Your task to perform on an android device: Open Youtube and go to the subscriptions tab Image 0: 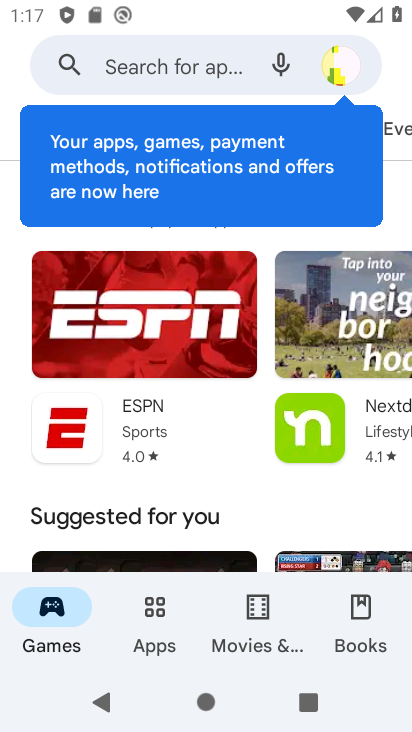
Step 0: press home button
Your task to perform on an android device: Open Youtube and go to the subscriptions tab Image 1: 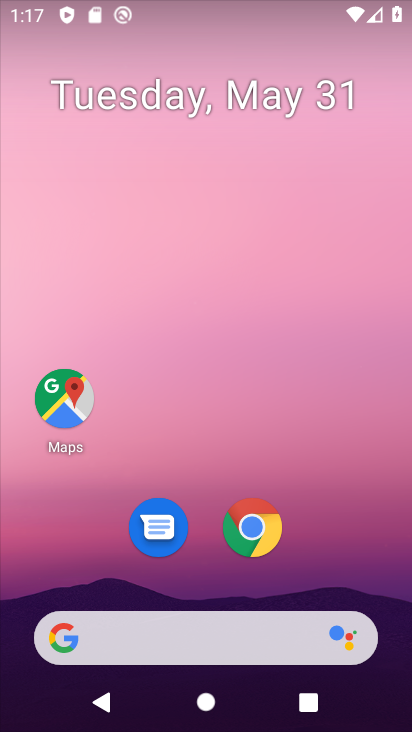
Step 1: drag from (348, 528) to (245, 8)
Your task to perform on an android device: Open Youtube and go to the subscriptions tab Image 2: 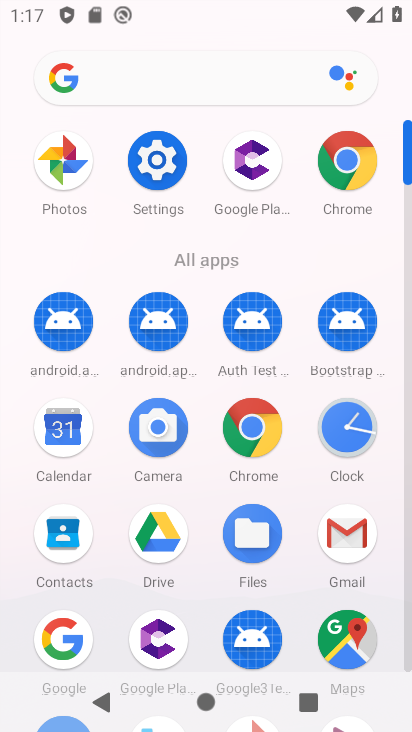
Step 2: drag from (396, 587) to (335, 165)
Your task to perform on an android device: Open Youtube and go to the subscriptions tab Image 3: 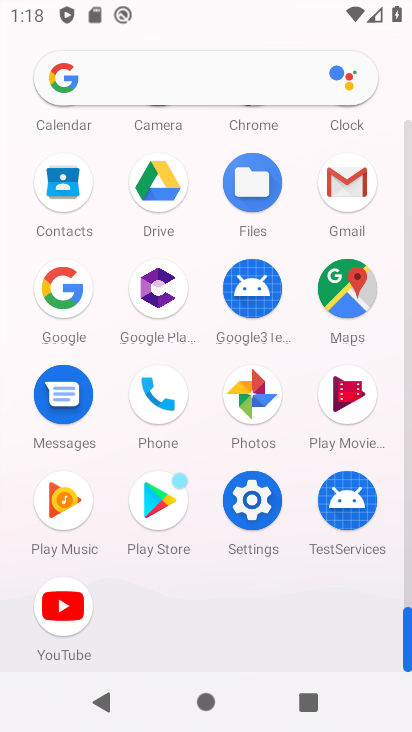
Step 3: click (69, 620)
Your task to perform on an android device: Open Youtube and go to the subscriptions tab Image 4: 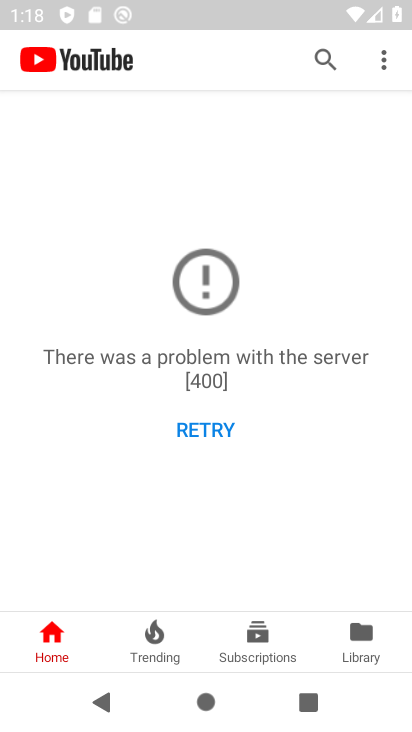
Step 4: click (264, 626)
Your task to perform on an android device: Open Youtube and go to the subscriptions tab Image 5: 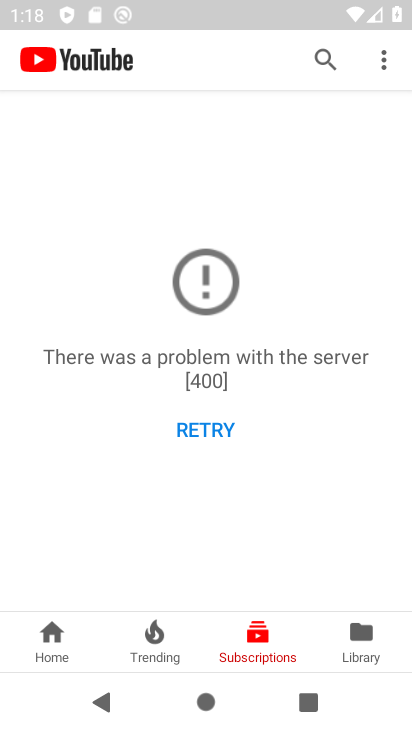
Step 5: task complete